Your task to perform on an android device: Open Google Maps Image 0: 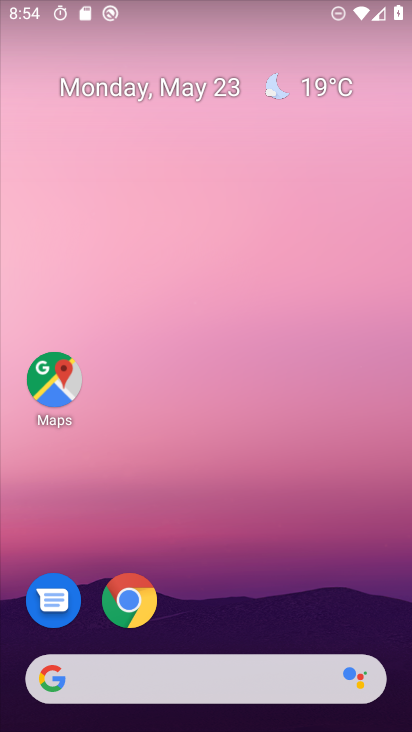
Step 0: press home button
Your task to perform on an android device: Open Google Maps Image 1: 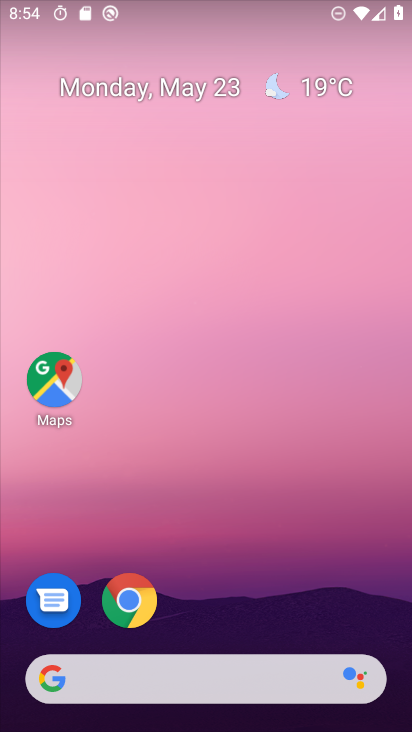
Step 1: click (50, 391)
Your task to perform on an android device: Open Google Maps Image 2: 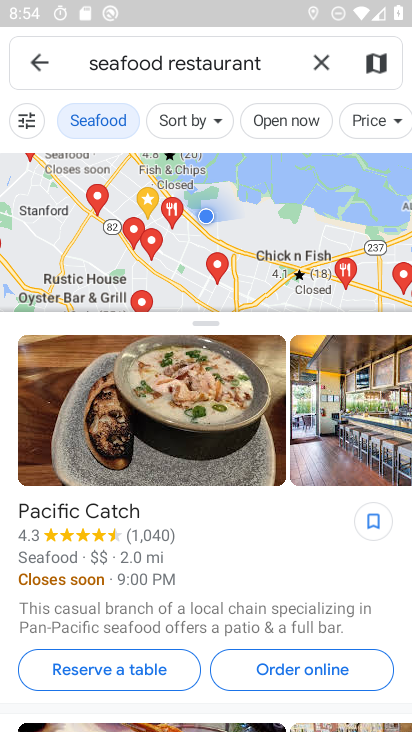
Step 2: click (314, 57)
Your task to perform on an android device: Open Google Maps Image 3: 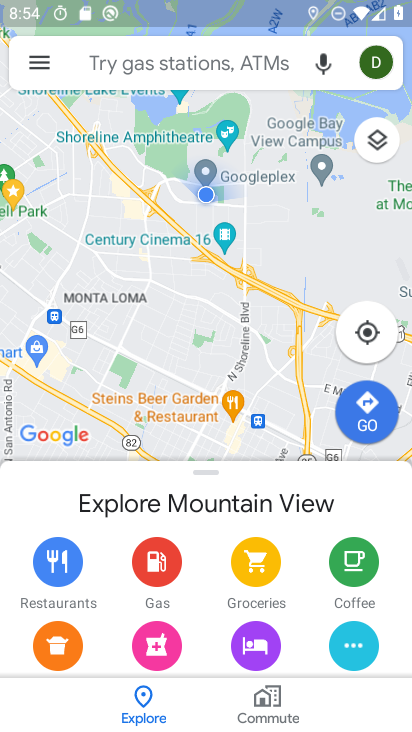
Step 3: task complete